Your task to perform on an android device: change your default location settings in chrome Image 0: 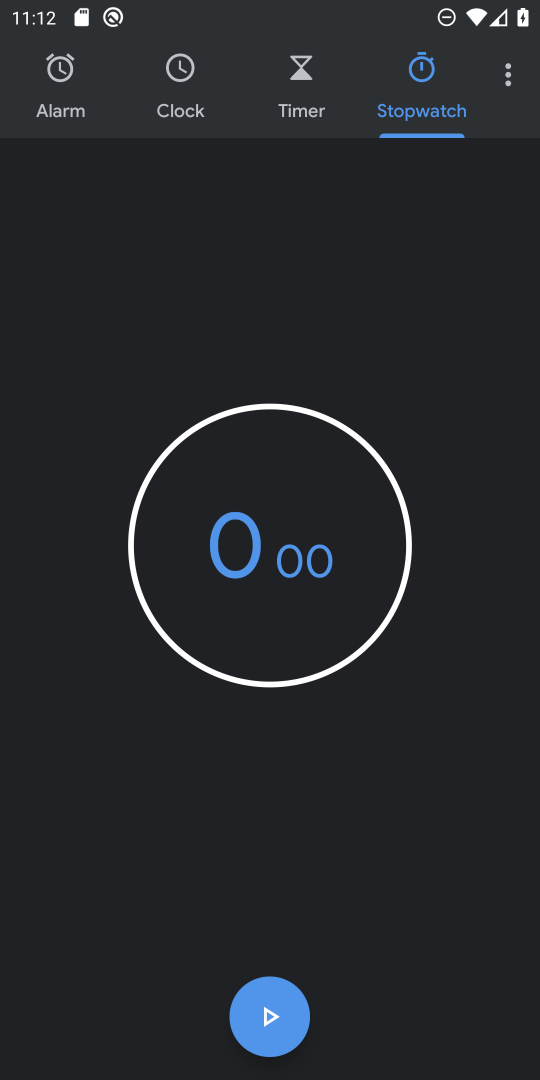
Step 0: press home button
Your task to perform on an android device: change your default location settings in chrome Image 1: 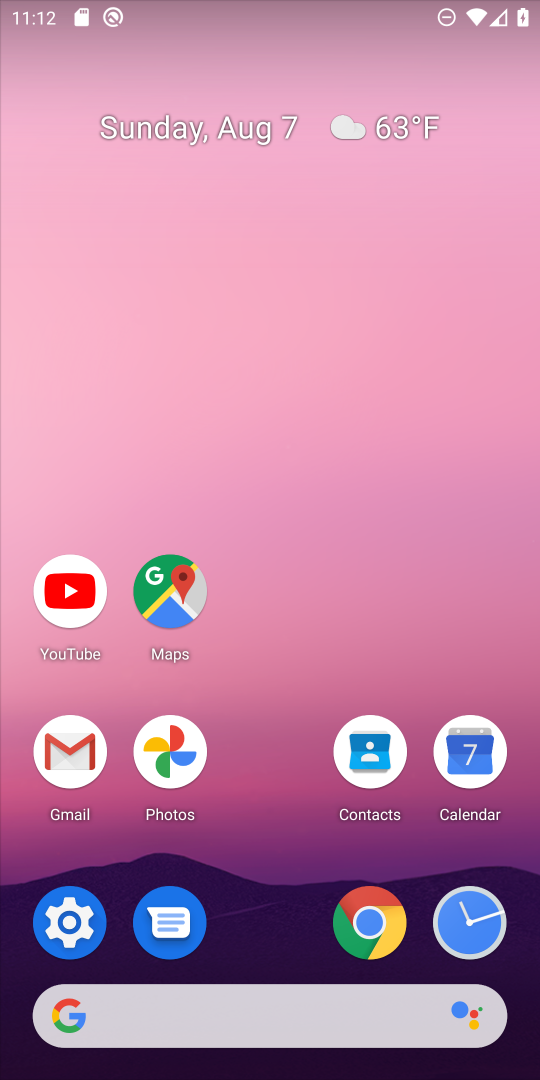
Step 1: click (369, 921)
Your task to perform on an android device: change your default location settings in chrome Image 2: 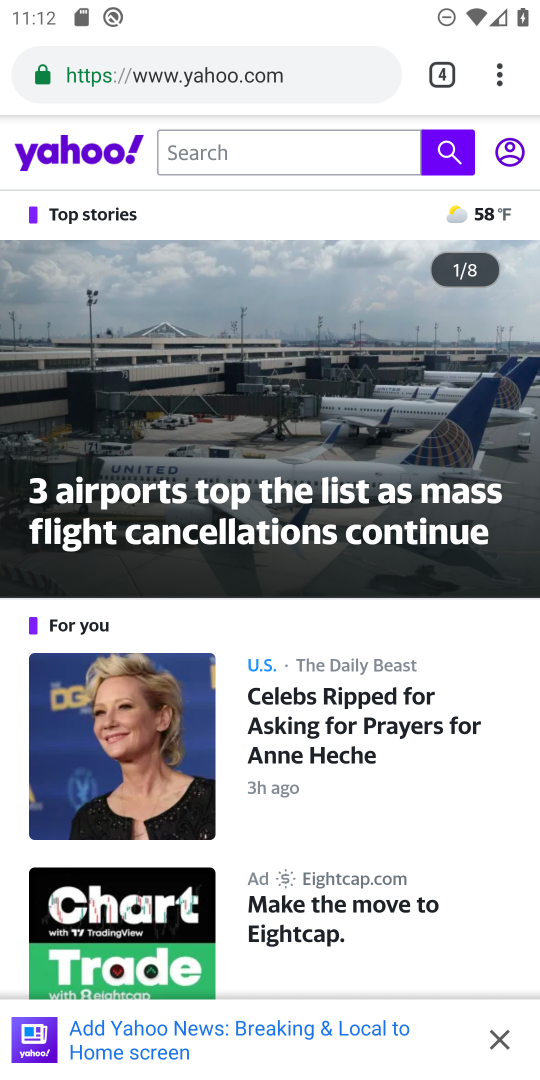
Step 2: click (505, 71)
Your task to perform on an android device: change your default location settings in chrome Image 3: 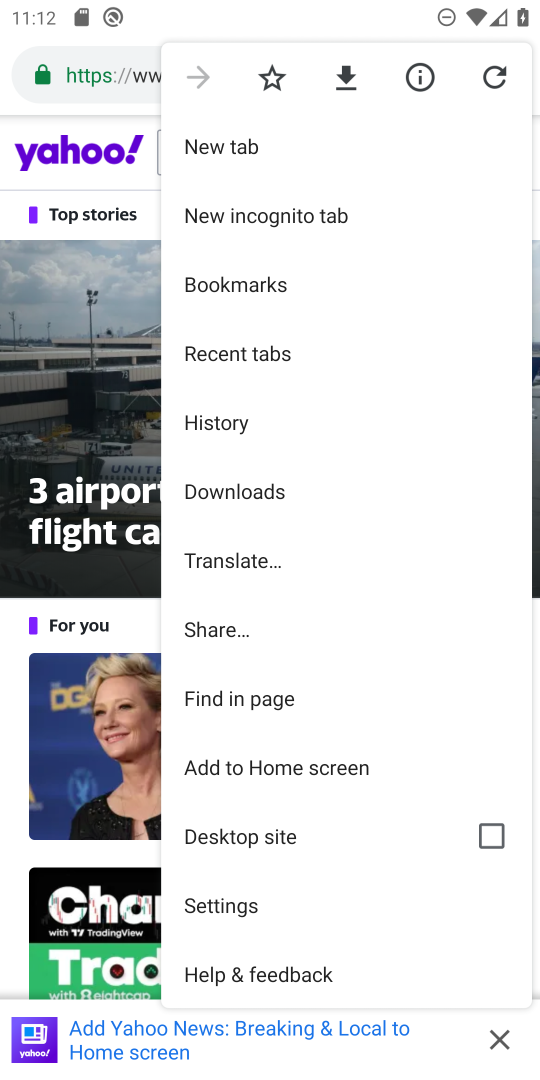
Step 3: click (237, 902)
Your task to perform on an android device: change your default location settings in chrome Image 4: 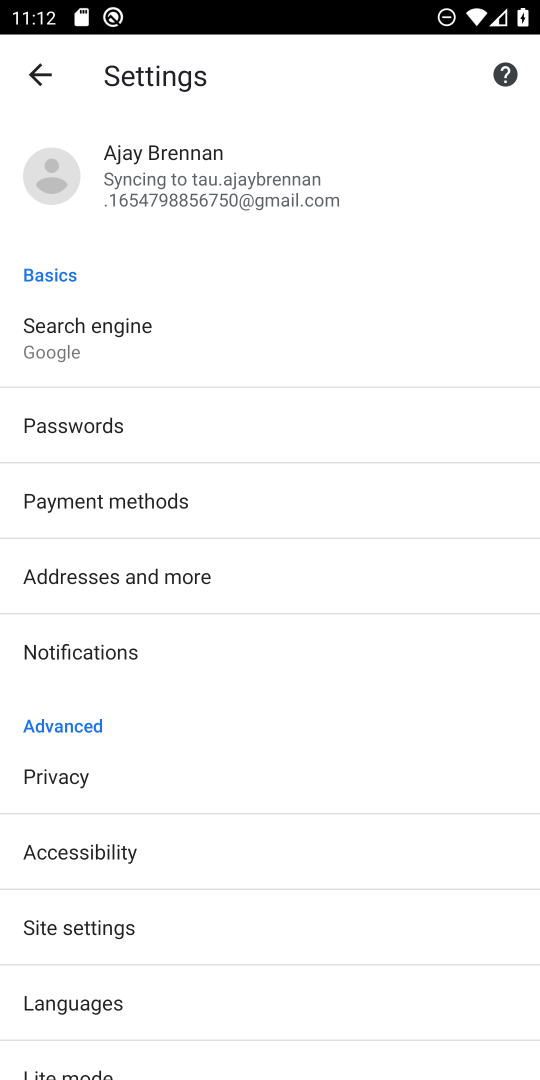
Step 4: drag from (256, 867) to (323, 351)
Your task to perform on an android device: change your default location settings in chrome Image 5: 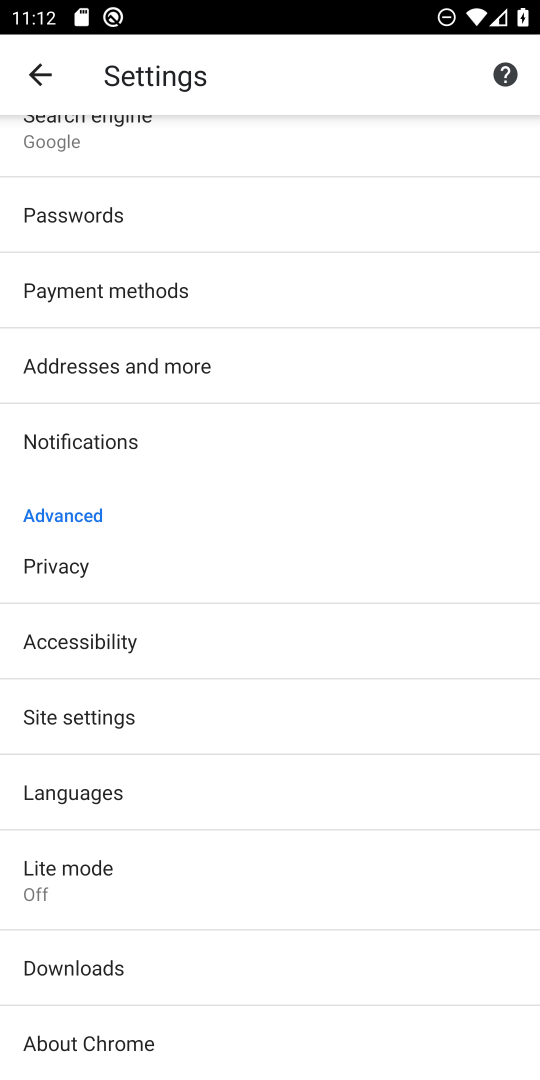
Step 5: click (92, 720)
Your task to perform on an android device: change your default location settings in chrome Image 6: 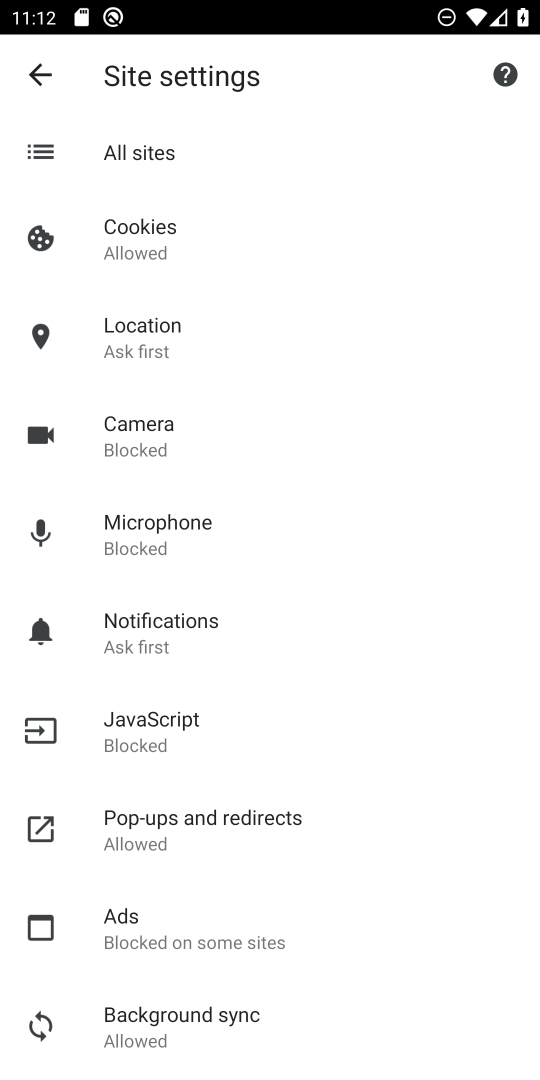
Step 6: click (140, 328)
Your task to perform on an android device: change your default location settings in chrome Image 7: 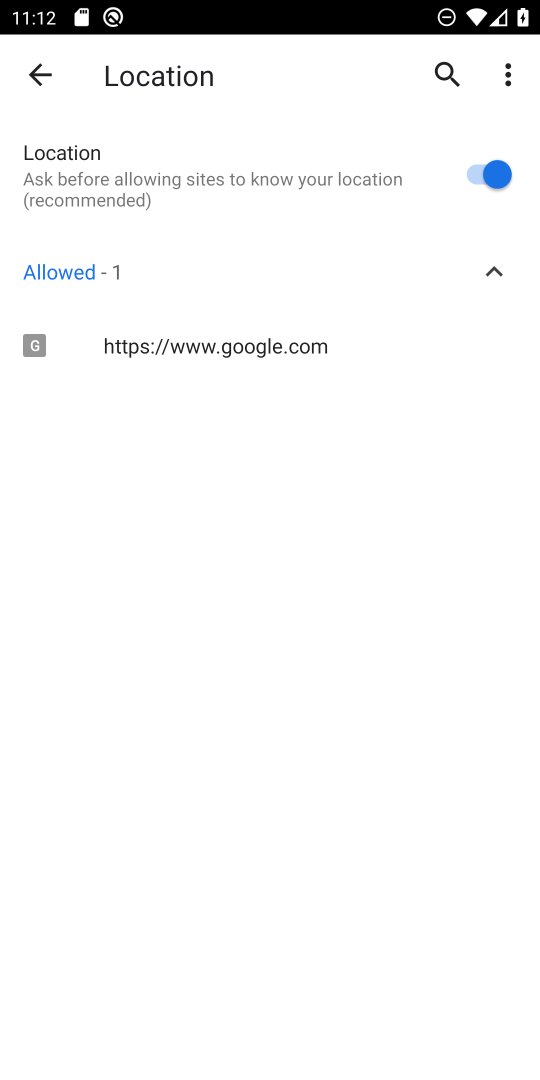
Step 7: click (501, 174)
Your task to perform on an android device: change your default location settings in chrome Image 8: 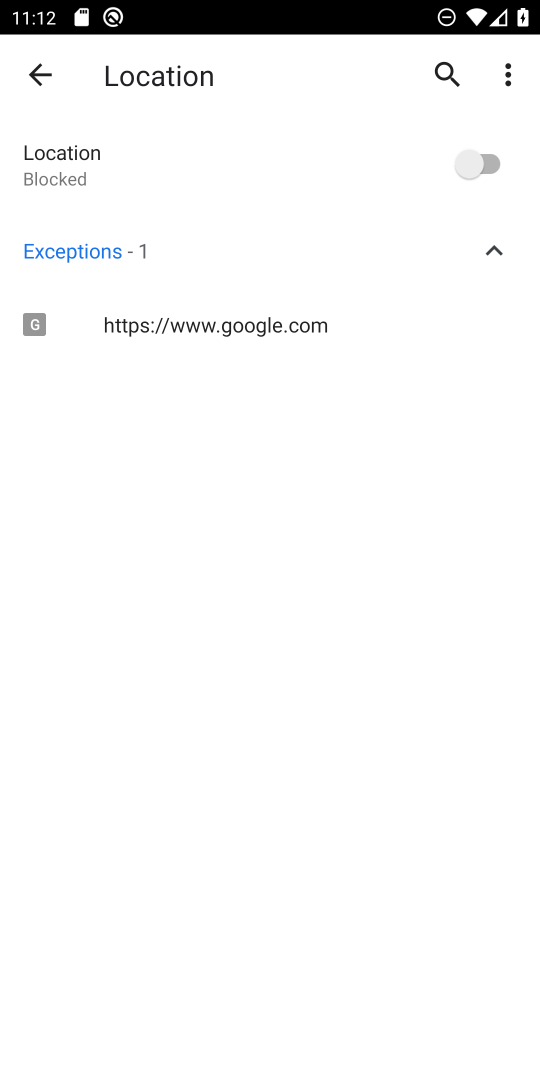
Step 8: task complete